Your task to perform on an android device: Open the Play Movies app and select the watchlist tab. Image 0: 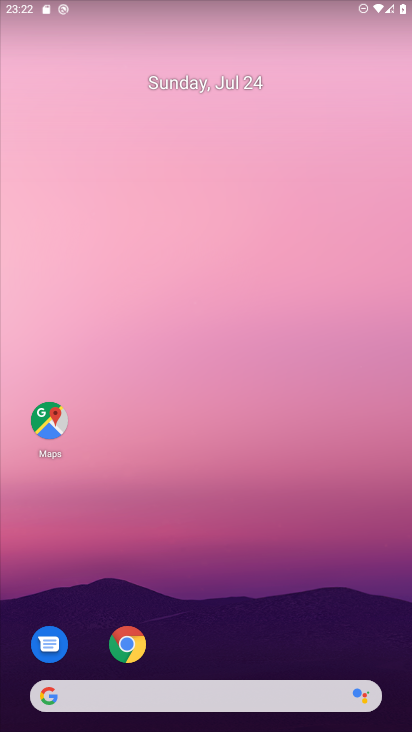
Step 0: drag from (393, 661) to (323, 107)
Your task to perform on an android device: Open the Play Movies app and select the watchlist tab. Image 1: 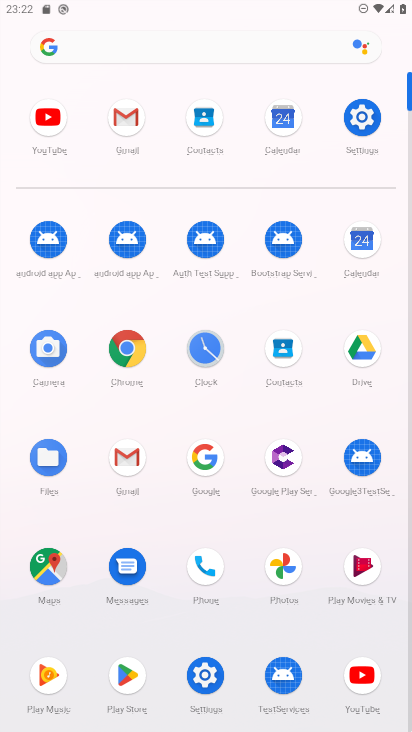
Step 1: click (363, 564)
Your task to perform on an android device: Open the Play Movies app and select the watchlist tab. Image 2: 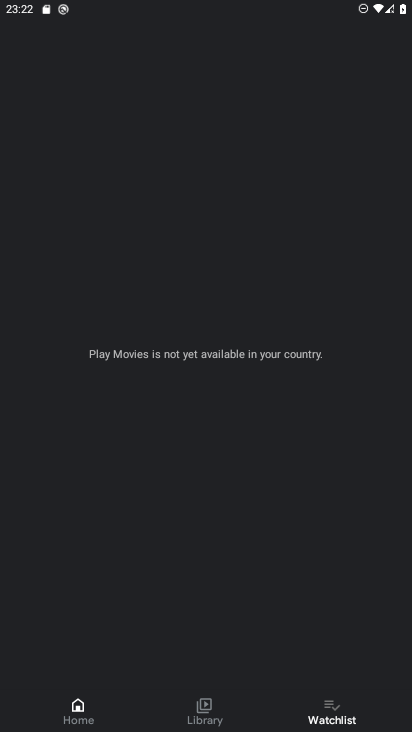
Step 2: click (336, 713)
Your task to perform on an android device: Open the Play Movies app and select the watchlist tab. Image 3: 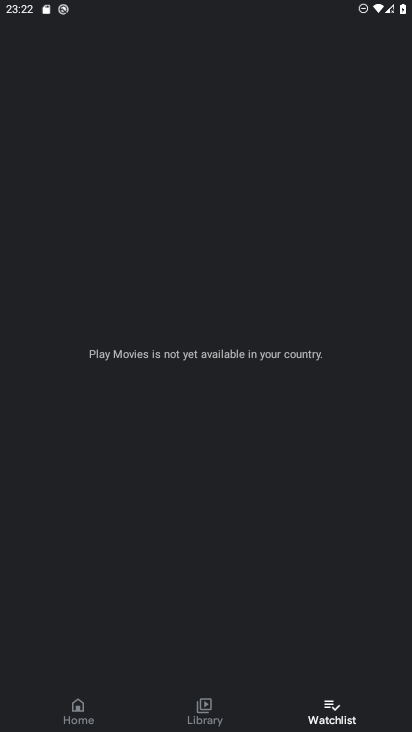
Step 3: task complete